Your task to perform on an android device: check data usage Image 0: 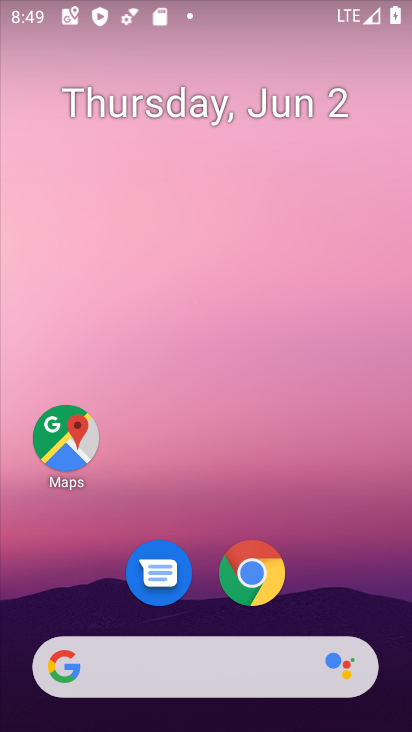
Step 0: press home button
Your task to perform on an android device: check data usage Image 1: 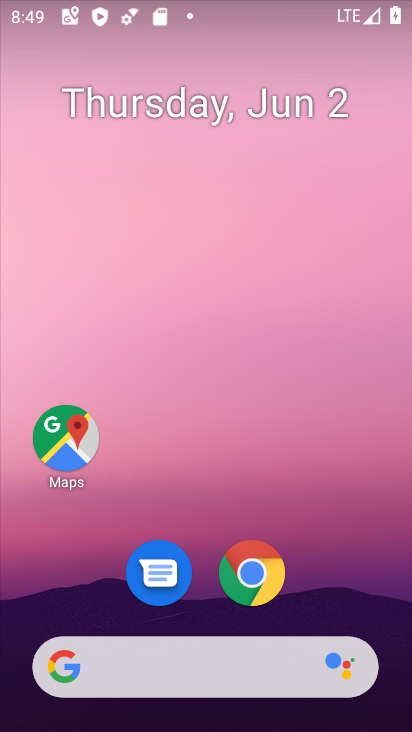
Step 1: drag from (370, 13) to (356, 708)
Your task to perform on an android device: check data usage Image 2: 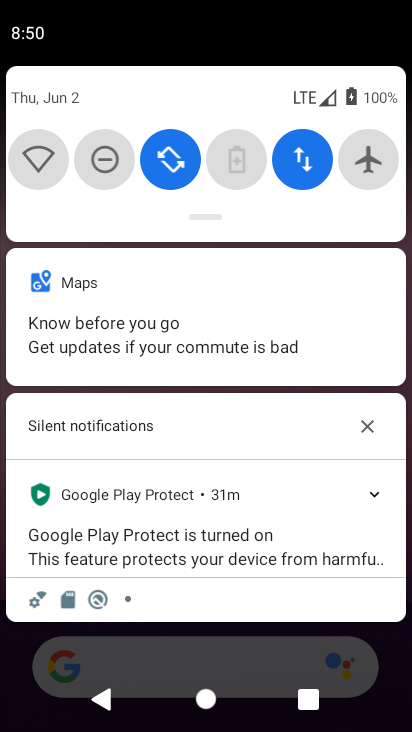
Step 2: click (324, 140)
Your task to perform on an android device: check data usage Image 3: 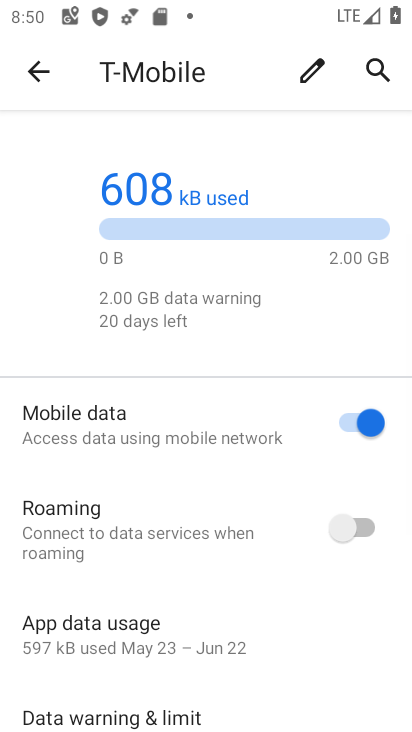
Step 3: task complete